Your task to perform on an android device: delete a single message in the gmail app Image 0: 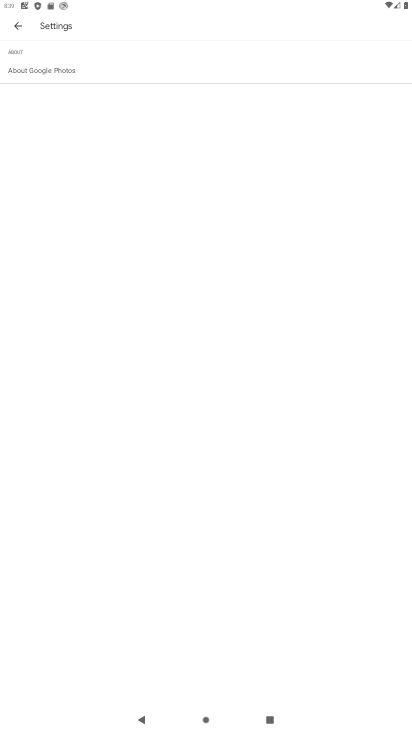
Step 0: task impossible